Your task to perform on an android device: set default search engine in the chrome app Image 0: 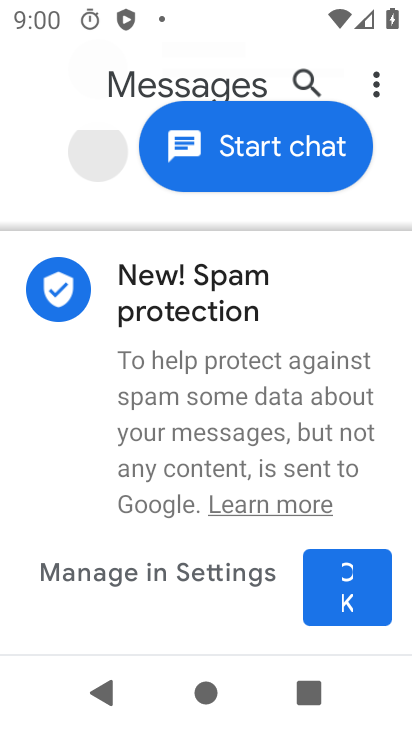
Step 0: press home button
Your task to perform on an android device: set default search engine in the chrome app Image 1: 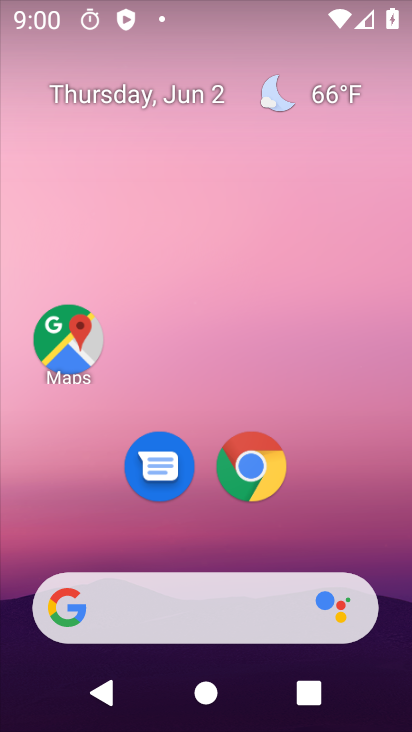
Step 1: click (252, 464)
Your task to perform on an android device: set default search engine in the chrome app Image 2: 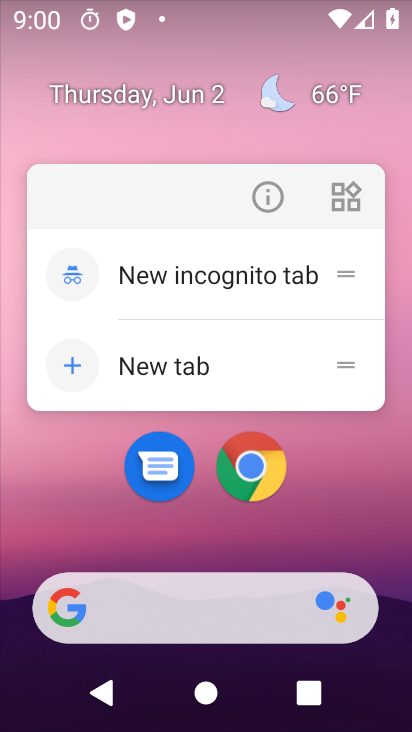
Step 2: click (252, 464)
Your task to perform on an android device: set default search engine in the chrome app Image 3: 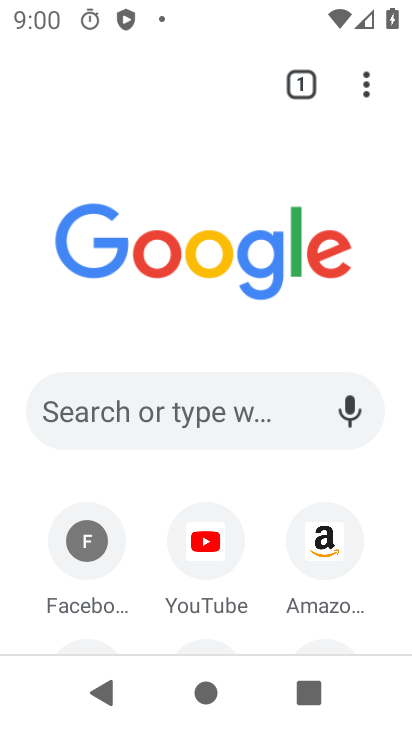
Step 3: click (356, 90)
Your task to perform on an android device: set default search engine in the chrome app Image 4: 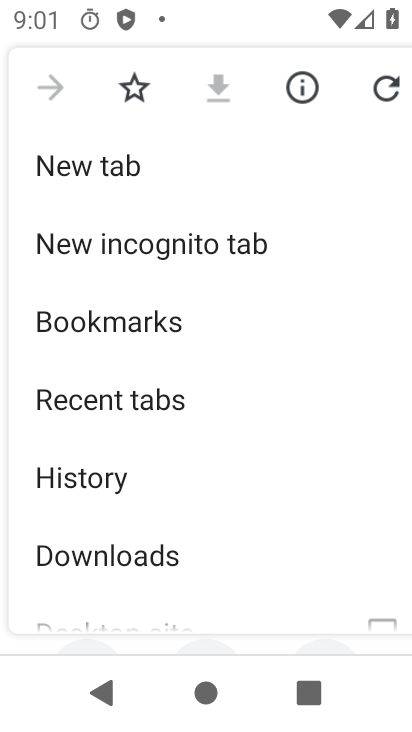
Step 4: drag from (3, 575) to (268, 121)
Your task to perform on an android device: set default search engine in the chrome app Image 5: 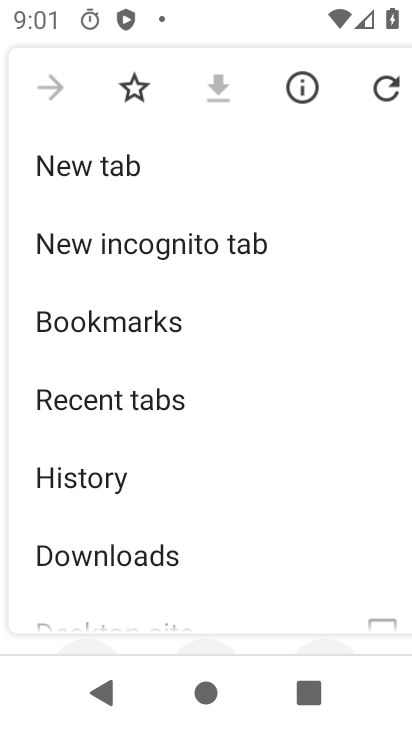
Step 5: drag from (23, 573) to (305, 225)
Your task to perform on an android device: set default search engine in the chrome app Image 6: 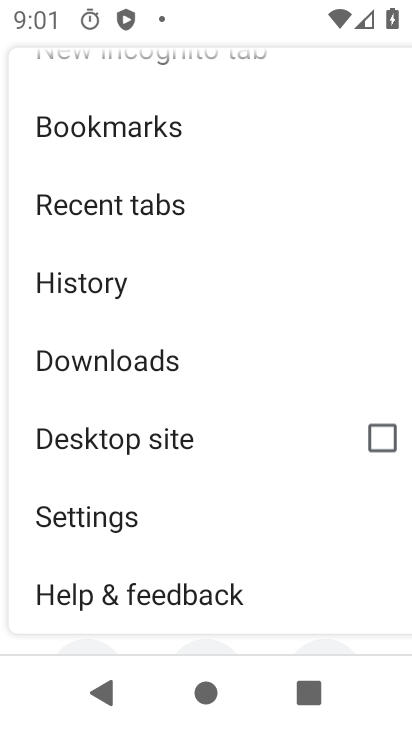
Step 6: click (92, 514)
Your task to perform on an android device: set default search engine in the chrome app Image 7: 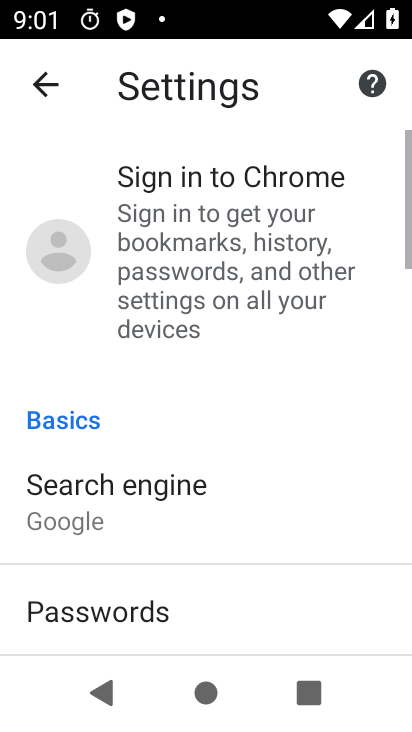
Step 7: click (91, 508)
Your task to perform on an android device: set default search engine in the chrome app Image 8: 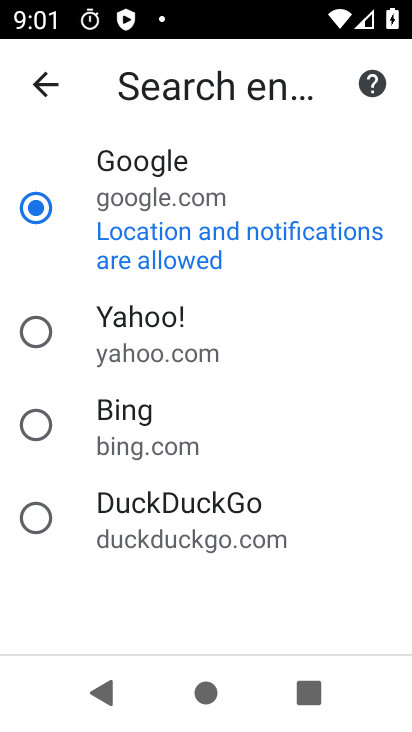
Step 8: task complete